Your task to perform on an android device: Open battery settings Image 0: 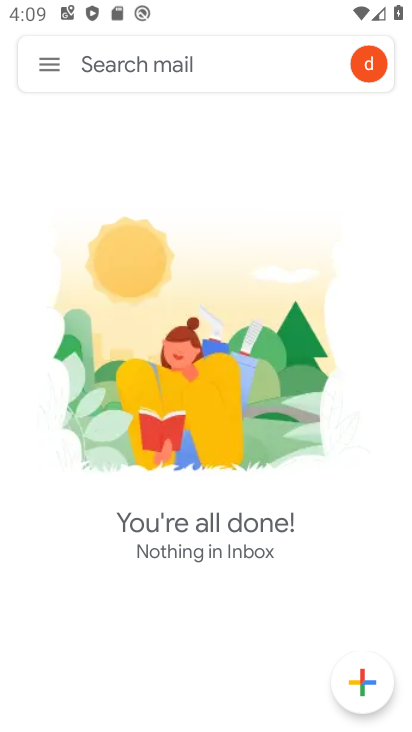
Step 0: press home button
Your task to perform on an android device: Open battery settings Image 1: 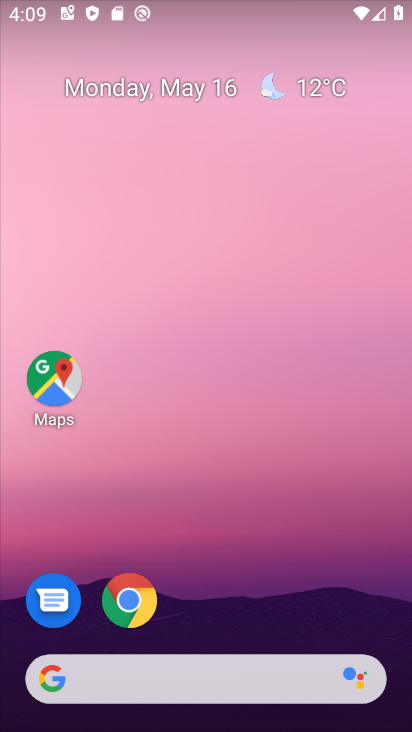
Step 1: drag from (235, 580) to (281, 248)
Your task to perform on an android device: Open battery settings Image 2: 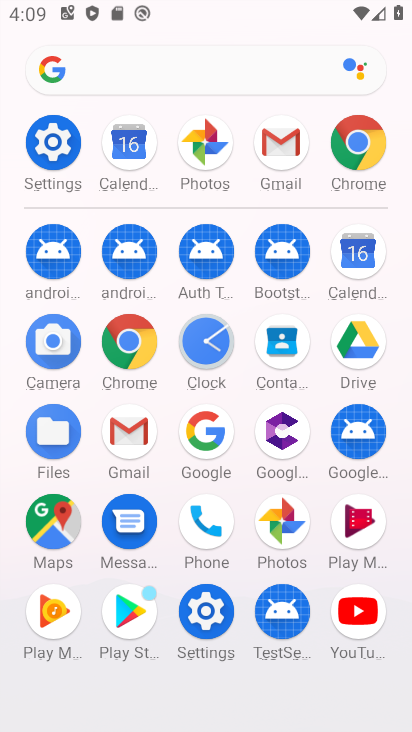
Step 2: click (51, 137)
Your task to perform on an android device: Open battery settings Image 3: 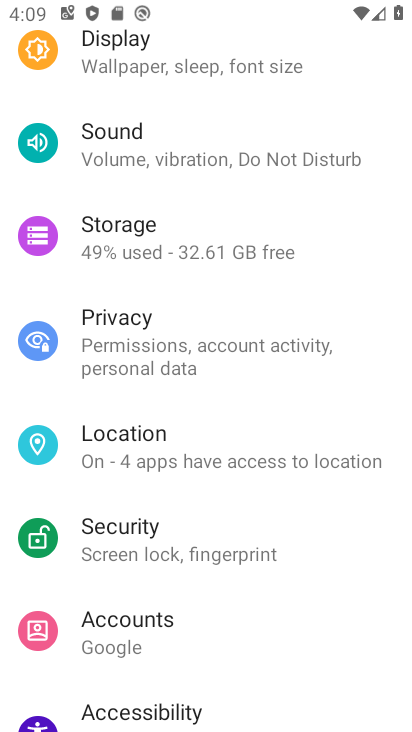
Step 3: drag from (234, 119) to (297, 530)
Your task to perform on an android device: Open battery settings Image 4: 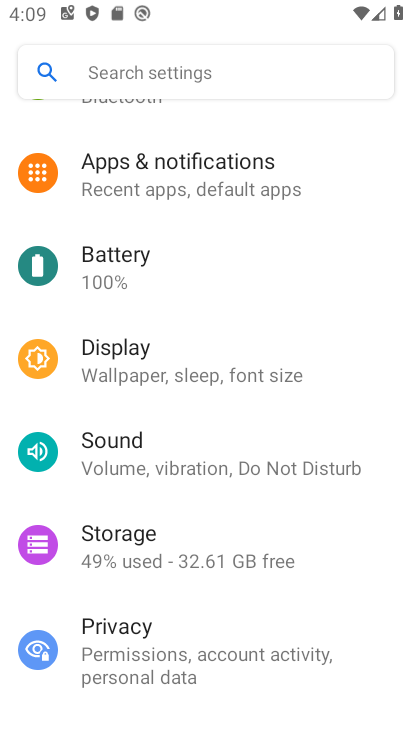
Step 4: drag from (191, 145) to (263, 560)
Your task to perform on an android device: Open battery settings Image 5: 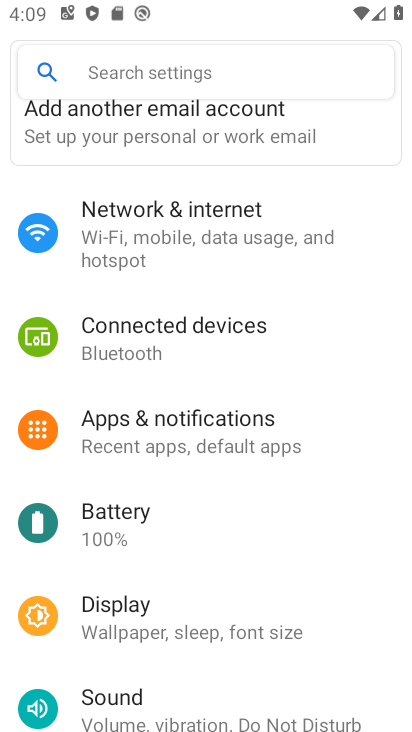
Step 5: click (93, 534)
Your task to perform on an android device: Open battery settings Image 6: 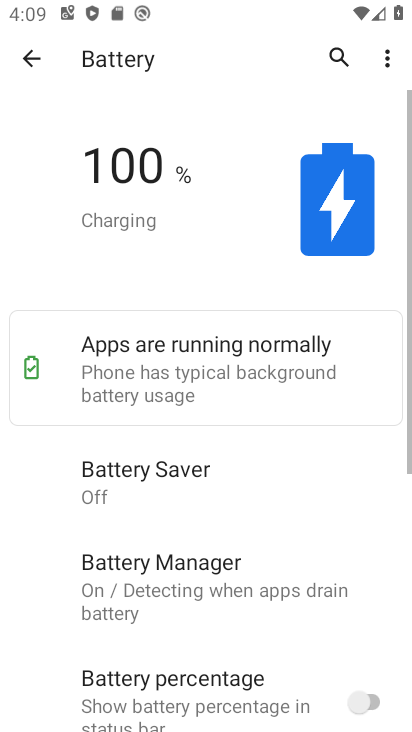
Step 6: task complete